Your task to perform on an android device: Go to network settings Image 0: 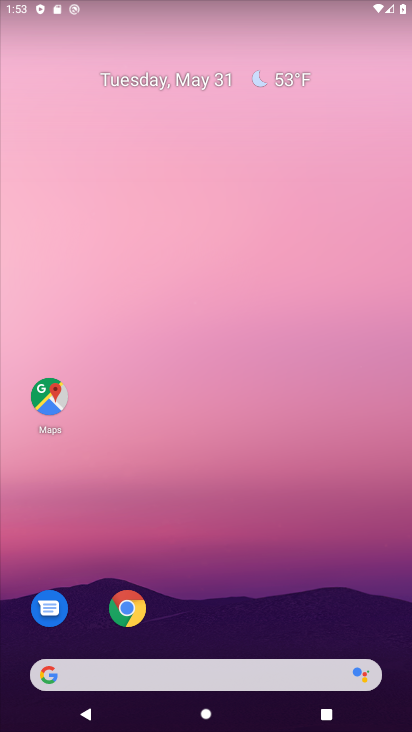
Step 0: drag from (244, 597) to (262, 465)
Your task to perform on an android device: Go to network settings Image 1: 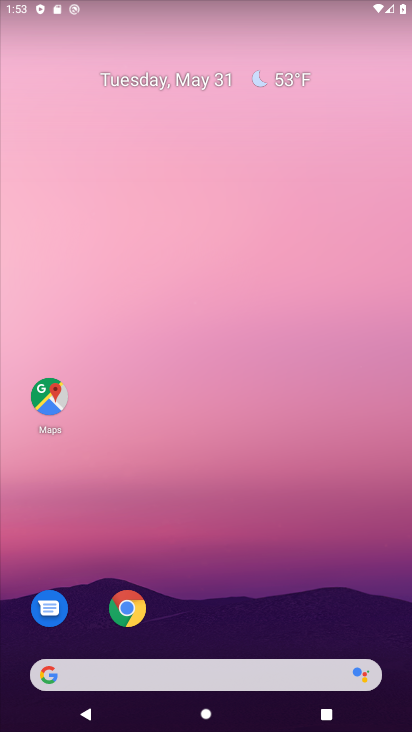
Step 1: drag from (221, 522) to (226, 55)
Your task to perform on an android device: Go to network settings Image 2: 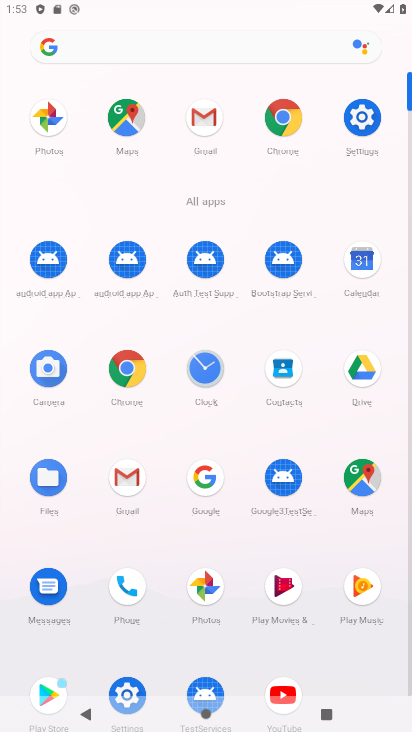
Step 2: click (364, 115)
Your task to perform on an android device: Go to network settings Image 3: 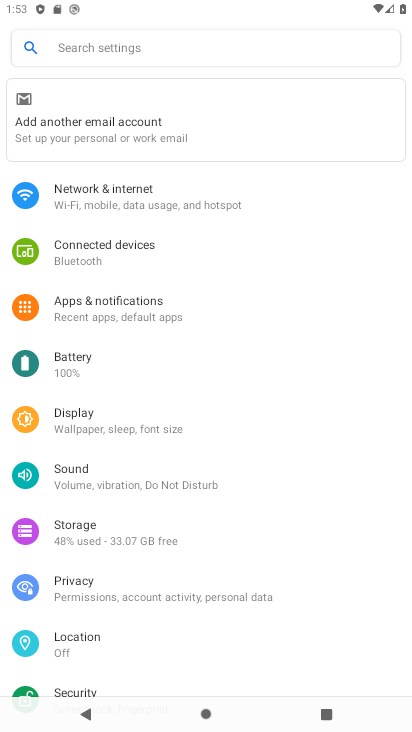
Step 3: click (158, 195)
Your task to perform on an android device: Go to network settings Image 4: 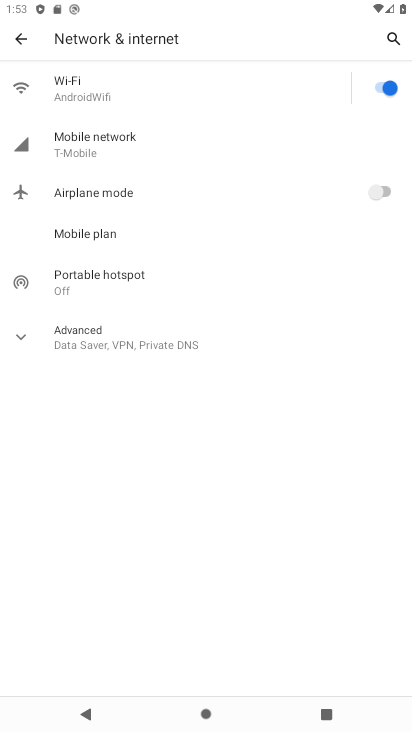
Step 4: click (128, 143)
Your task to perform on an android device: Go to network settings Image 5: 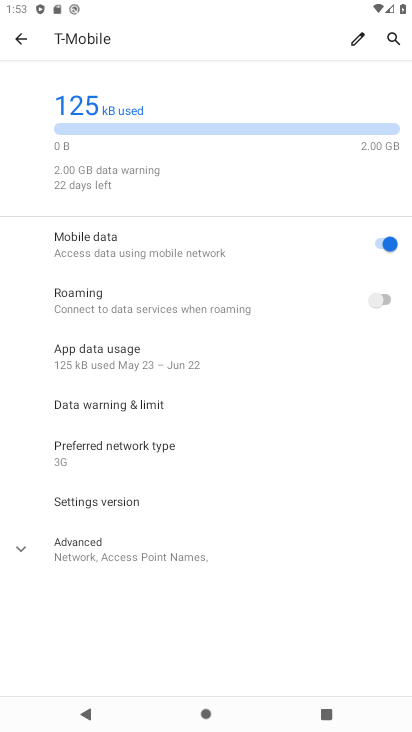
Step 5: task complete